Your task to perform on an android device: Open Android settings Image 0: 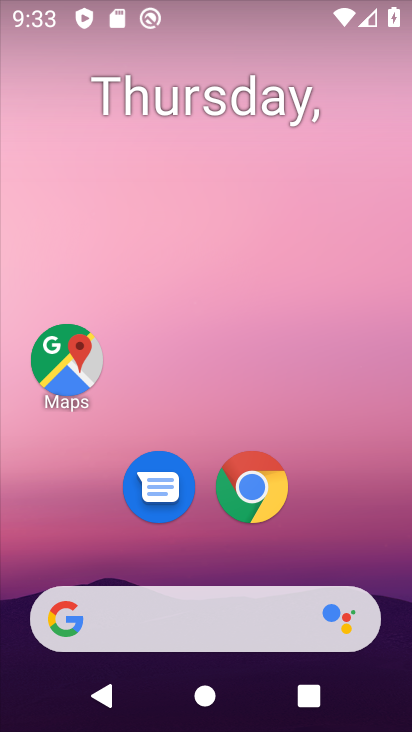
Step 0: drag from (351, 520) to (159, 130)
Your task to perform on an android device: Open Android settings Image 1: 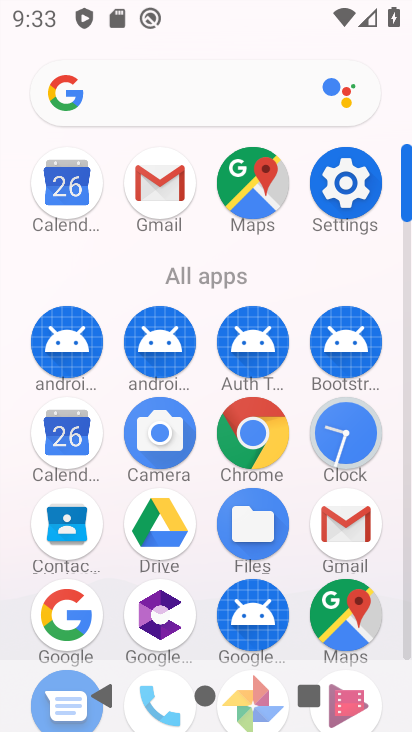
Step 1: click (327, 184)
Your task to perform on an android device: Open Android settings Image 2: 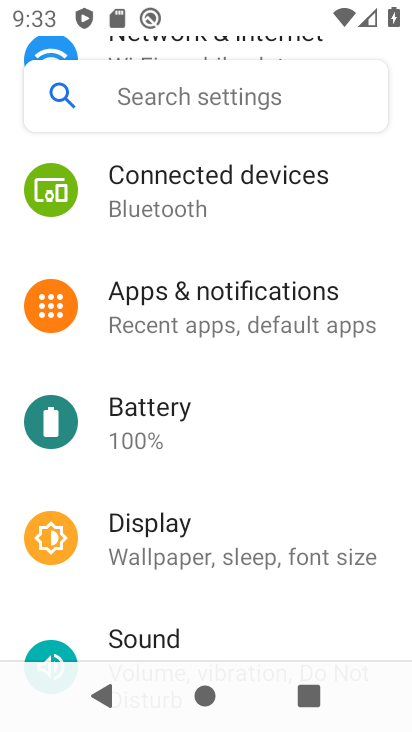
Step 2: drag from (231, 582) to (144, 101)
Your task to perform on an android device: Open Android settings Image 3: 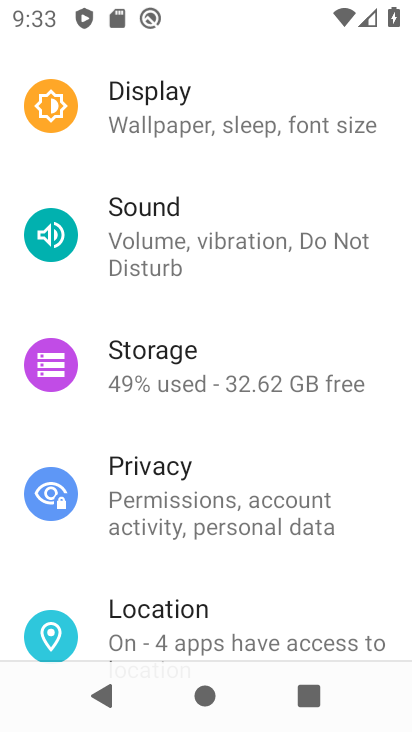
Step 3: drag from (253, 618) to (210, 166)
Your task to perform on an android device: Open Android settings Image 4: 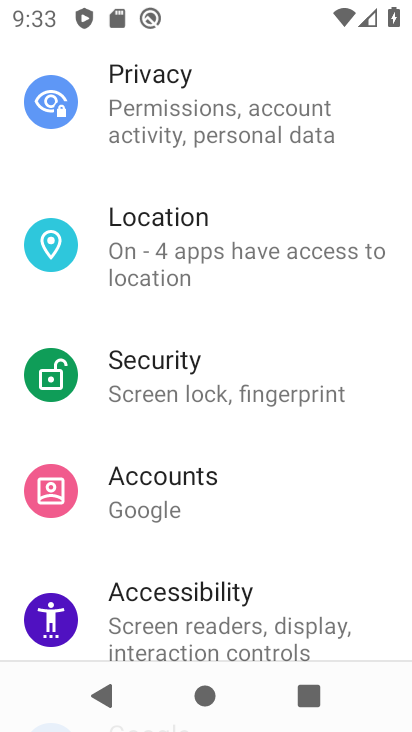
Step 4: drag from (302, 562) to (225, 115)
Your task to perform on an android device: Open Android settings Image 5: 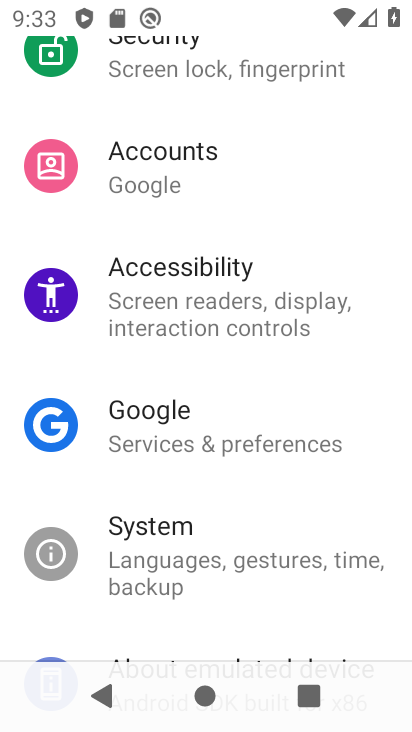
Step 5: drag from (267, 578) to (263, 155)
Your task to perform on an android device: Open Android settings Image 6: 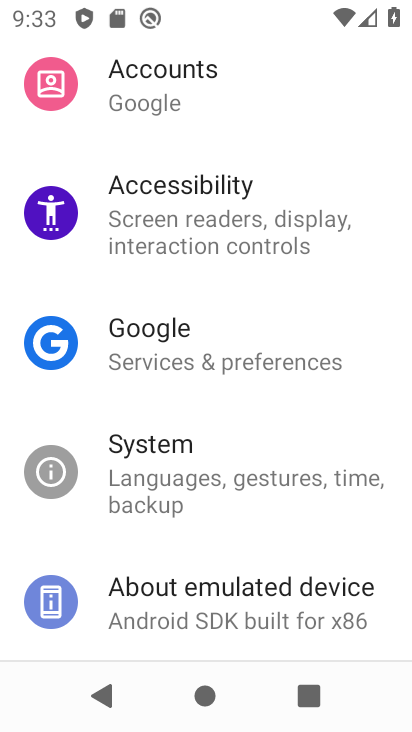
Step 6: click (200, 615)
Your task to perform on an android device: Open Android settings Image 7: 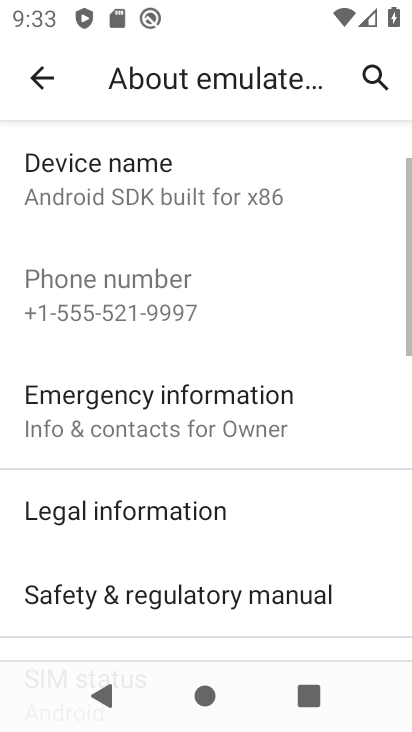
Step 7: drag from (200, 615) to (218, 159)
Your task to perform on an android device: Open Android settings Image 8: 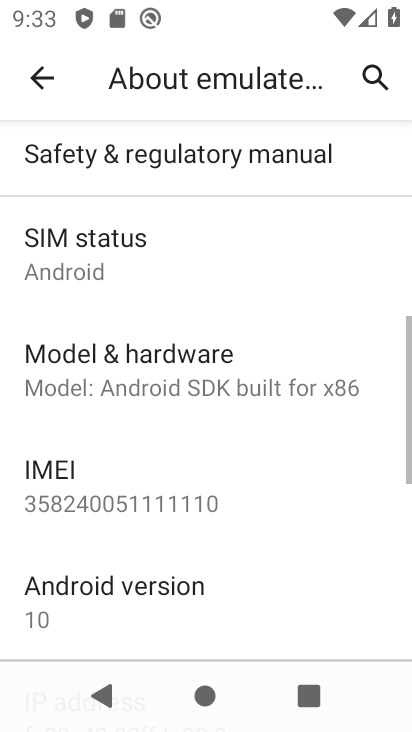
Step 8: click (154, 600)
Your task to perform on an android device: Open Android settings Image 9: 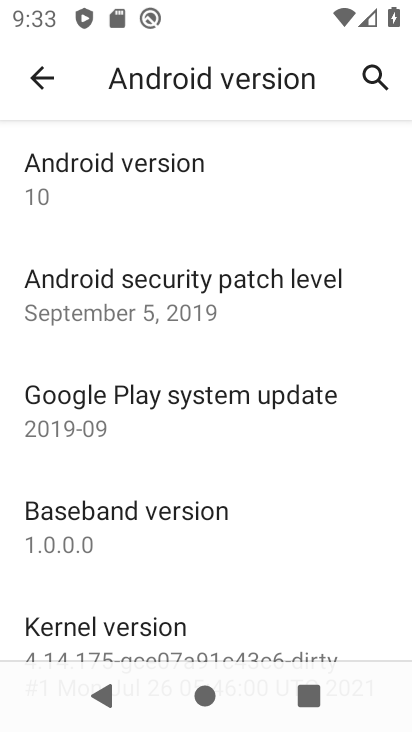
Step 9: task complete